Your task to perform on an android device: Go to Google maps Image 0: 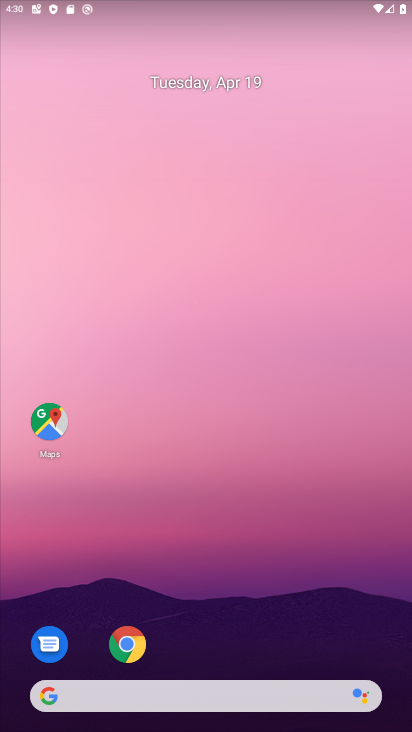
Step 0: click (47, 426)
Your task to perform on an android device: Go to Google maps Image 1: 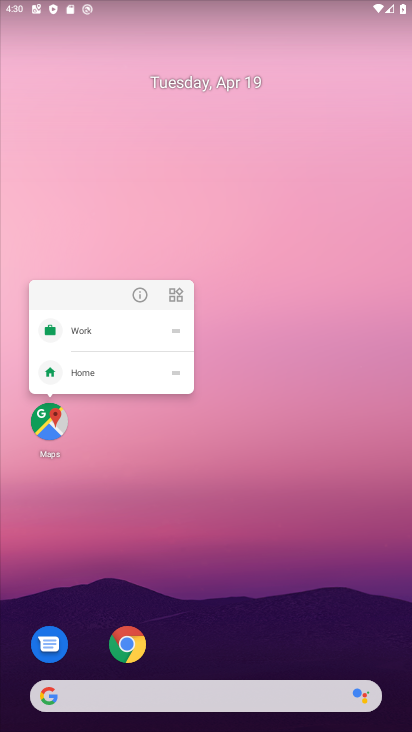
Step 1: click (64, 425)
Your task to perform on an android device: Go to Google maps Image 2: 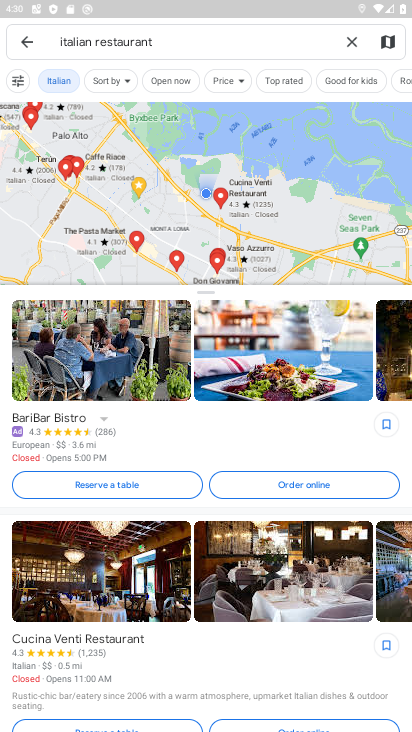
Step 2: task complete